Your task to perform on an android device: Open Youtube and go to "Your channel" Image 0: 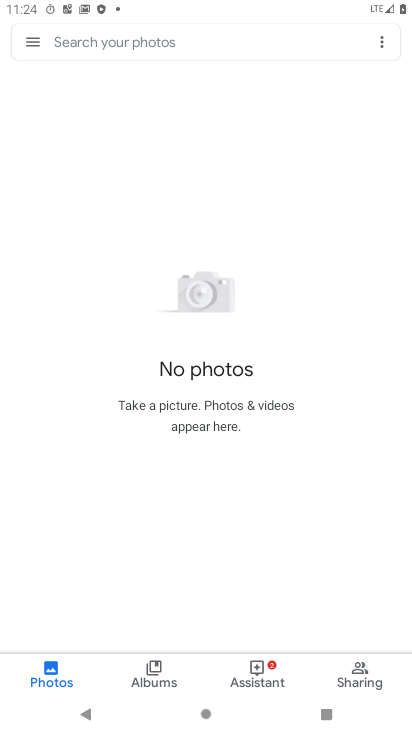
Step 0: press home button
Your task to perform on an android device: Open Youtube and go to "Your channel" Image 1: 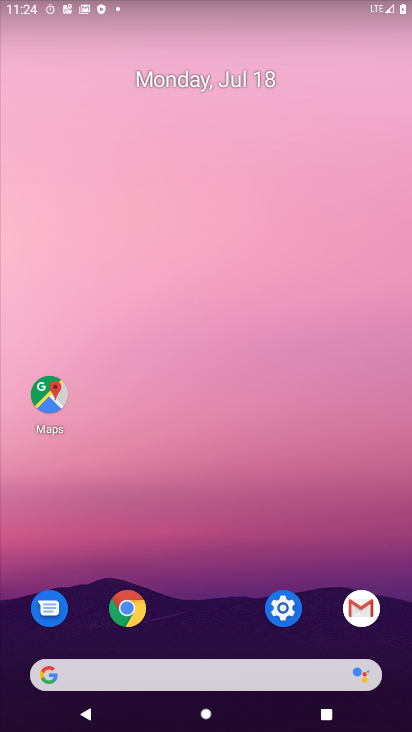
Step 1: drag from (315, 509) to (295, 214)
Your task to perform on an android device: Open Youtube and go to "Your channel" Image 2: 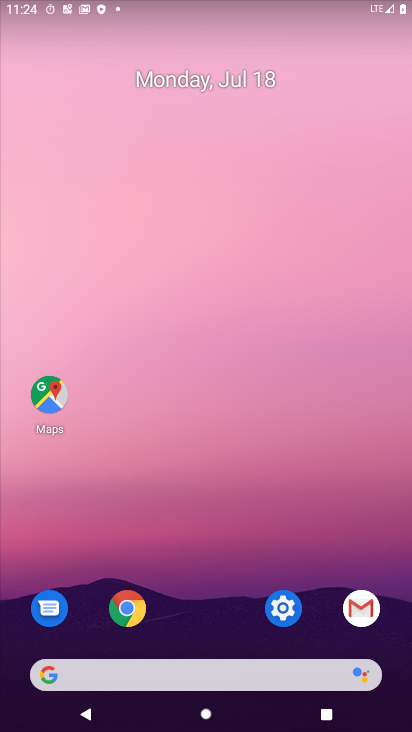
Step 2: drag from (231, 686) to (268, 141)
Your task to perform on an android device: Open Youtube and go to "Your channel" Image 3: 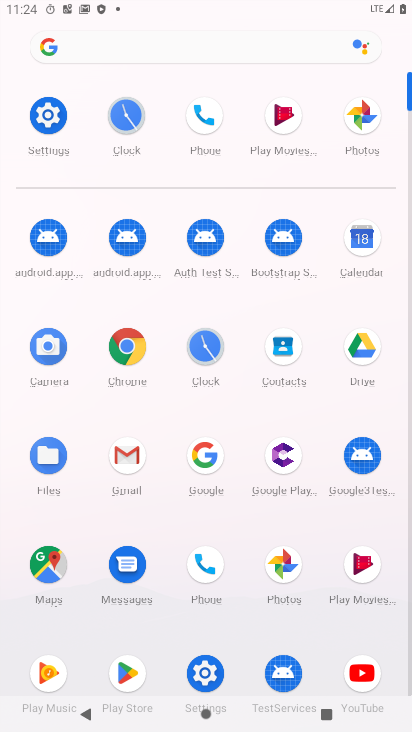
Step 3: click (362, 664)
Your task to perform on an android device: Open Youtube and go to "Your channel" Image 4: 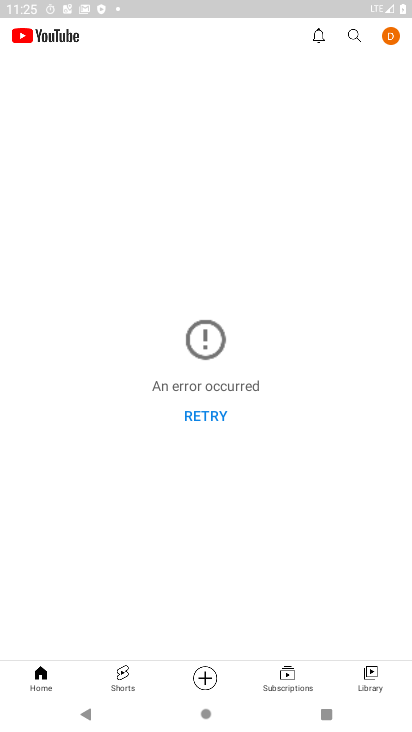
Step 4: click (385, 34)
Your task to perform on an android device: Open Youtube and go to "Your channel" Image 5: 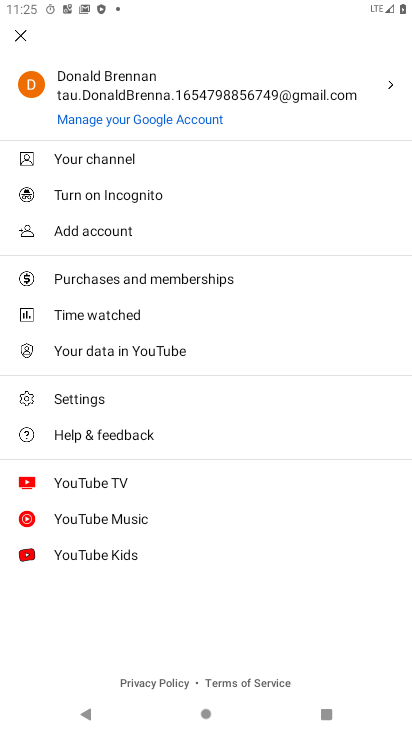
Step 5: click (112, 163)
Your task to perform on an android device: Open Youtube and go to "Your channel" Image 6: 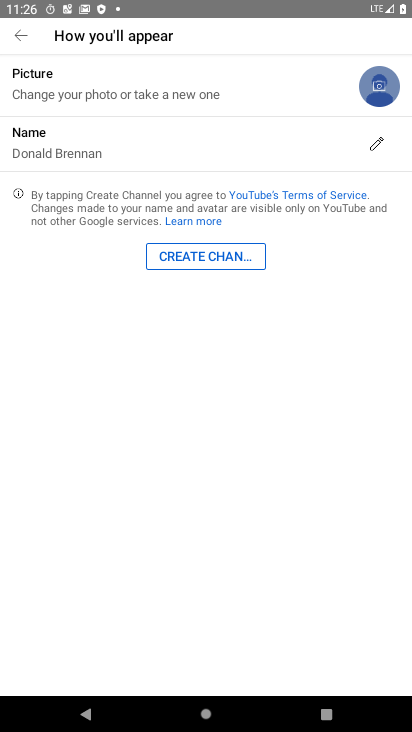
Step 6: task complete